Your task to perform on an android device: stop showing notifications on the lock screen Image 0: 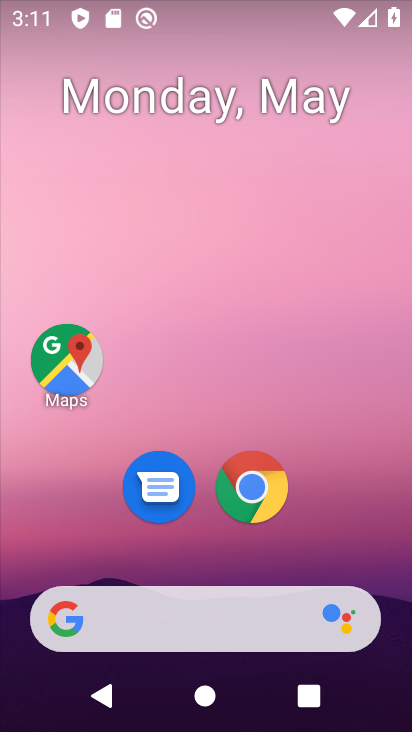
Step 0: drag from (186, 538) to (175, 205)
Your task to perform on an android device: stop showing notifications on the lock screen Image 1: 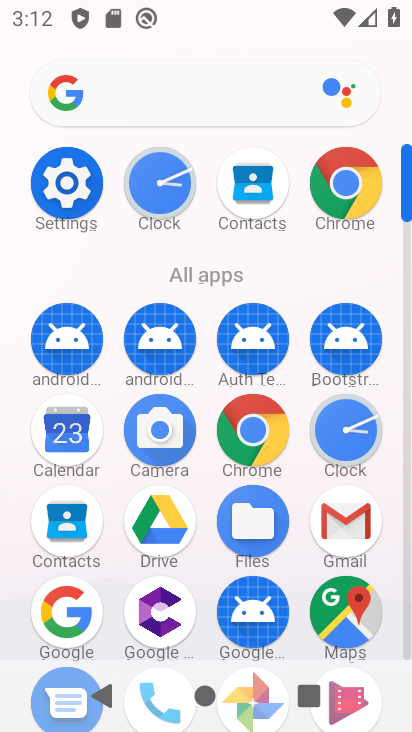
Step 1: click (65, 180)
Your task to perform on an android device: stop showing notifications on the lock screen Image 2: 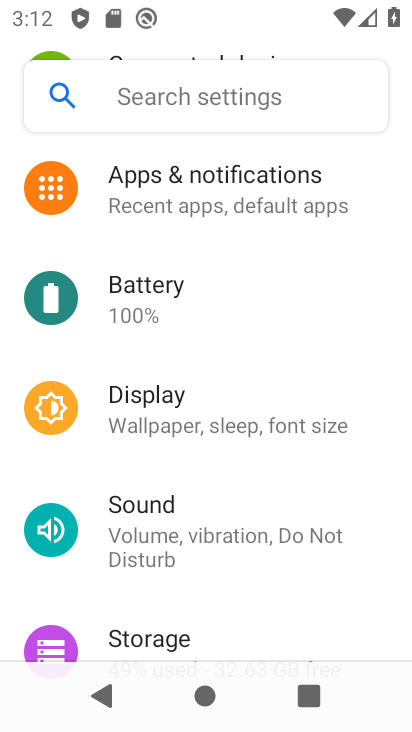
Step 2: drag from (170, 589) to (152, 218)
Your task to perform on an android device: stop showing notifications on the lock screen Image 3: 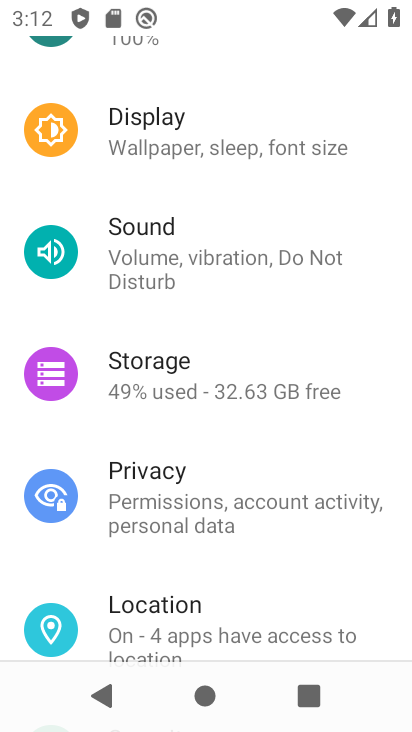
Step 3: click (174, 519)
Your task to perform on an android device: stop showing notifications on the lock screen Image 4: 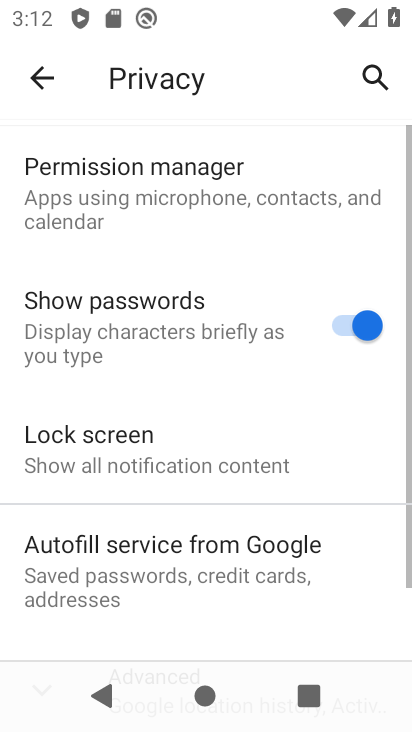
Step 4: click (171, 452)
Your task to perform on an android device: stop showing notifications on the lock screen Image 5: 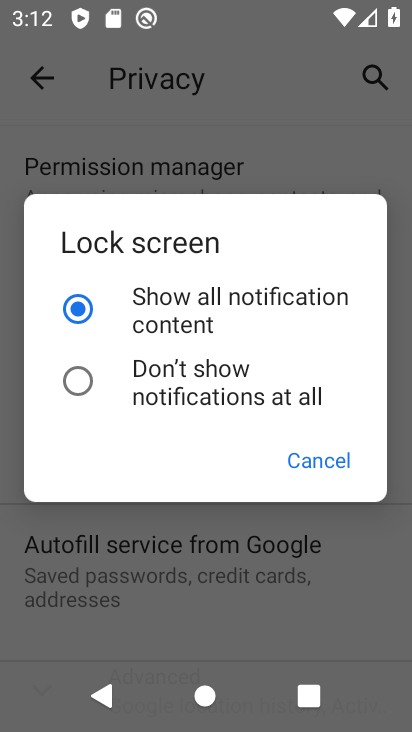
Step 5: click (166, 392)
Your task to perform on an android device: stop showing notifications on the lock screen Image 6: 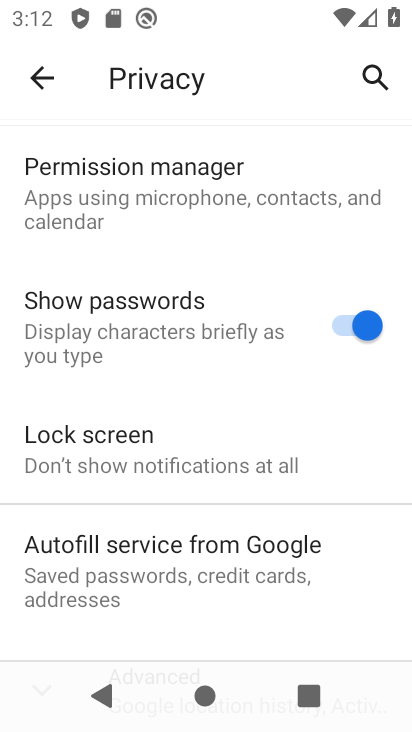
Step 6: task complete